Your task to perform on an android device: Open battery settings Image 0: 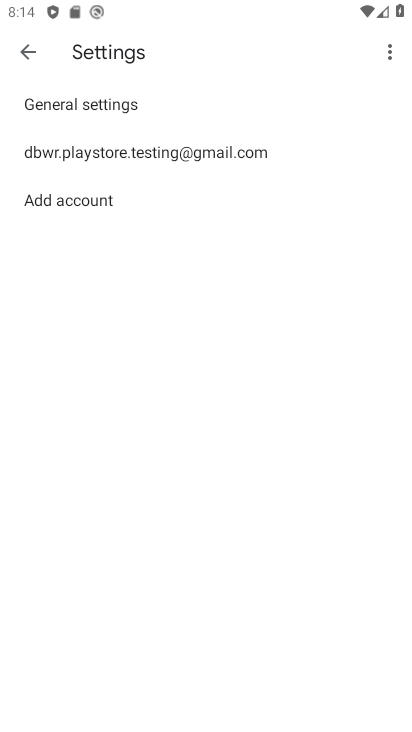
Step 0: press home button
Your task to perform on an android device: Open battery settings Image 1: 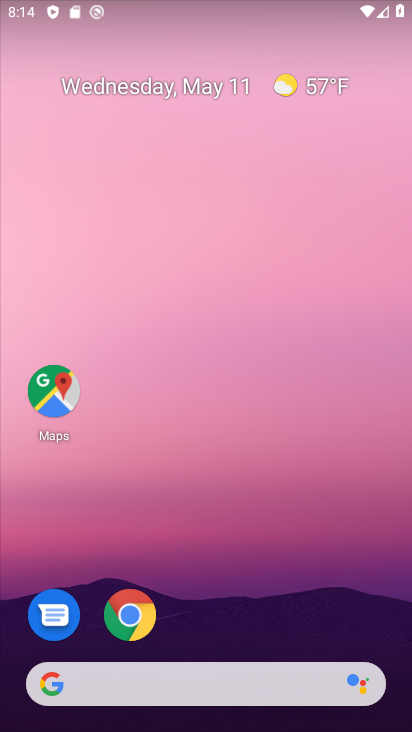
Step 1: drag from (222, 525) to (251, 116)
Your task to perform on an android device: Open battery settings Image 2: 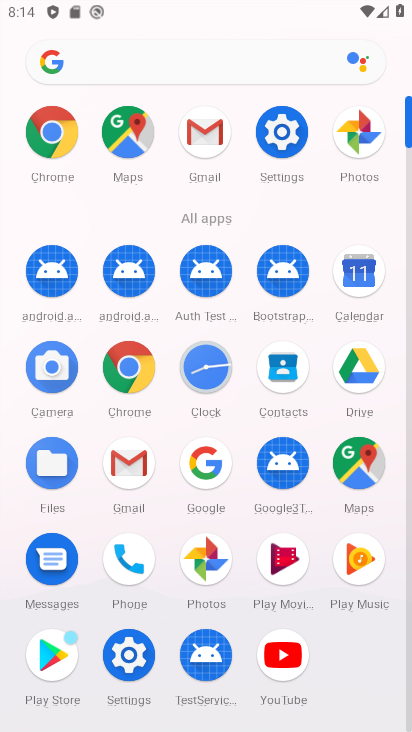
Step 2: click (303, 144)
Your task to perform on an android device: Open battery settings Image 3: 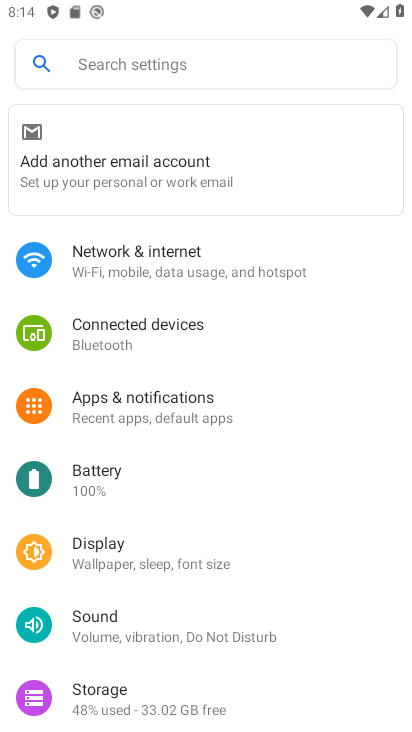
Step 3: click (176, 481)
Your task to perform on an android device: Open battery settings Image 4: 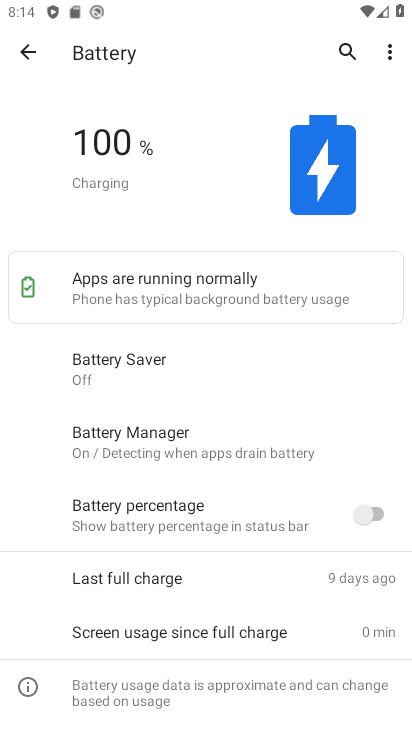
Step 4: task complete